Your task to perform on an android device: allow notifications from all sites in the chrome app Image 0: 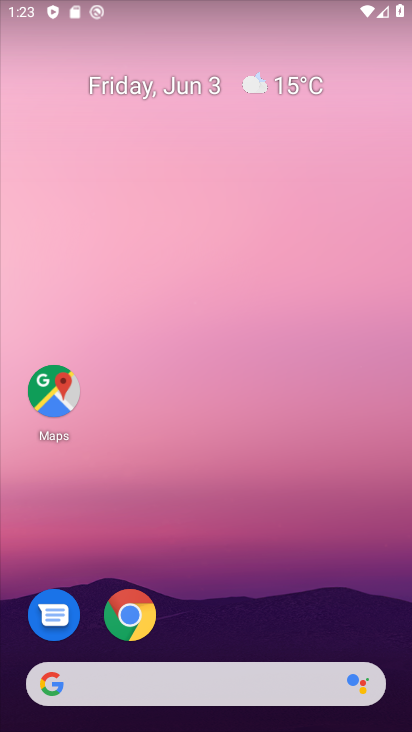
Step 0: click (279, 216)
Your task to perform on an android device: allow notifications from all sites in the chrome app Image 1: 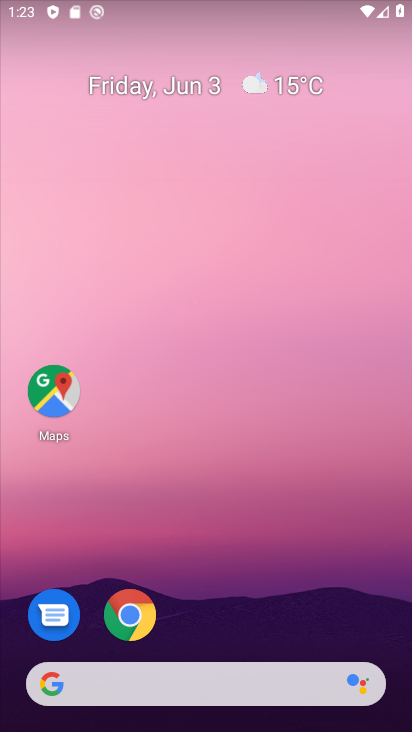
Step 1: drag from (175, 653) to (226, 136)
Your task to perform on an android device: allow notifications from all sites in the chrome app Image 2: 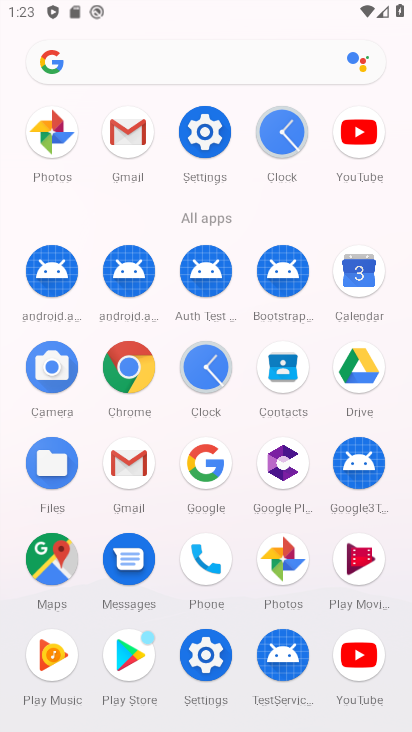
Step 2: click (115, 367)
Your task to perform on an android device: allow notifications from all sites in the chrome app Image 3: 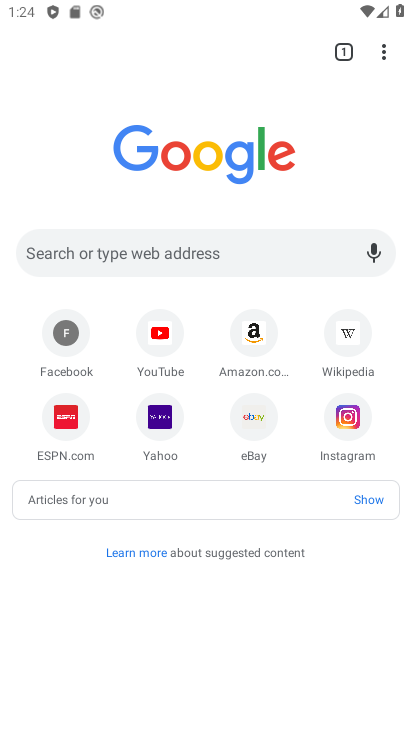
Step 3: click (392, 59)
Your task to perform on an android device: allow notifications from all sites in the chrome app Image 4: 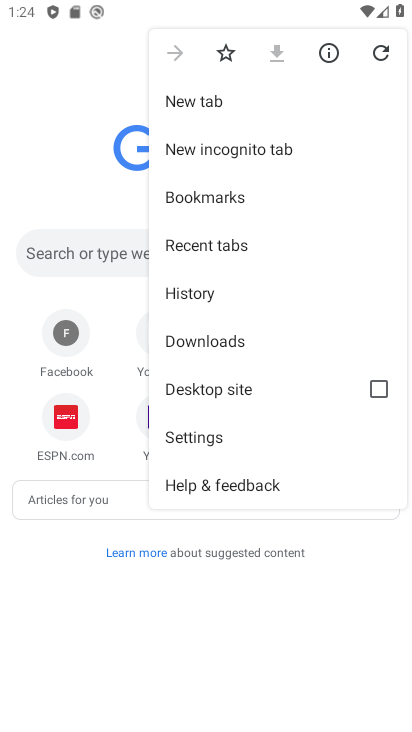
Step 4: click (231, 433)
Your task to perform on an android device: allow notifications from all sites in the chrome app Image 5: 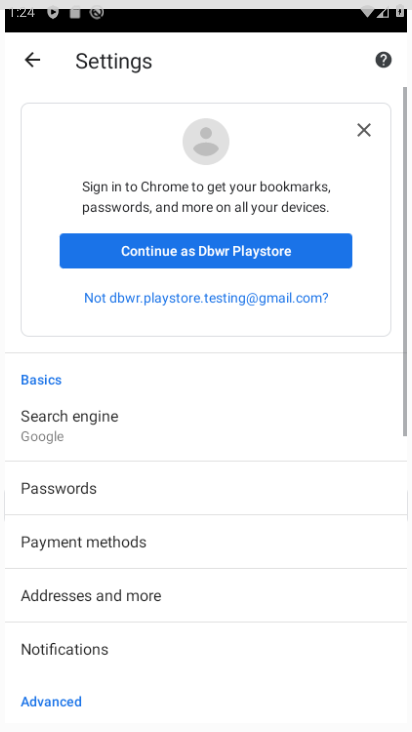
Step 5: drag from (246, 463) to (342, 38)
Your task to perform on an android device: allow notifications from all sites in the chrome app Image 6: 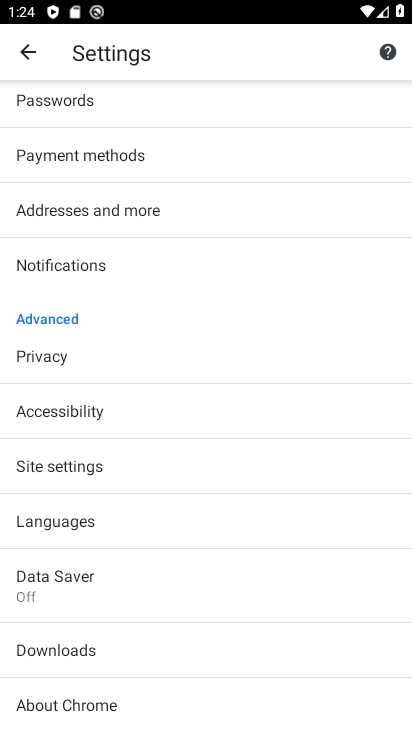
Step 6: click (105, 475)
Your task to perform on an android device: allow notifications from all sites in the chrome app Image 7: 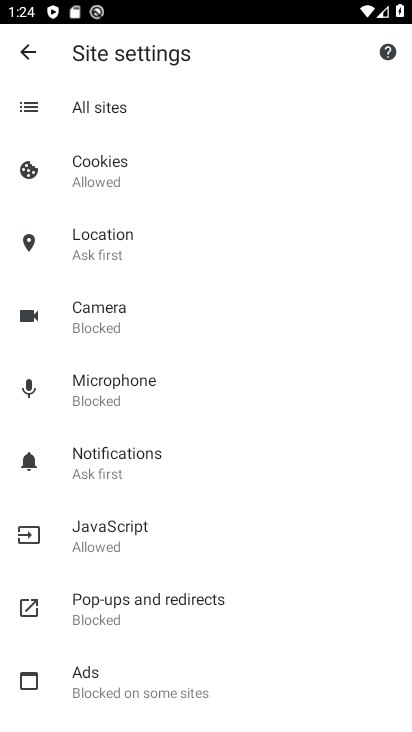
Step 7: click (143, 479)
Your task to perform on an android device: allow notifications from all sites in the chrome app Image 8: 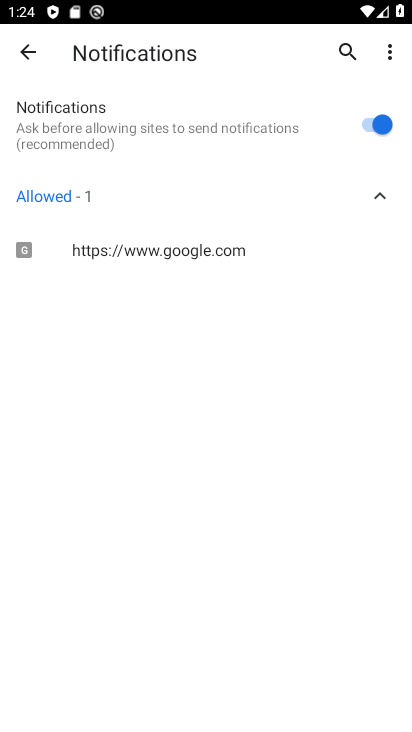
Step 8: task complete